Your task to perform on an android device: check the backup settings in the google photos Image 0: 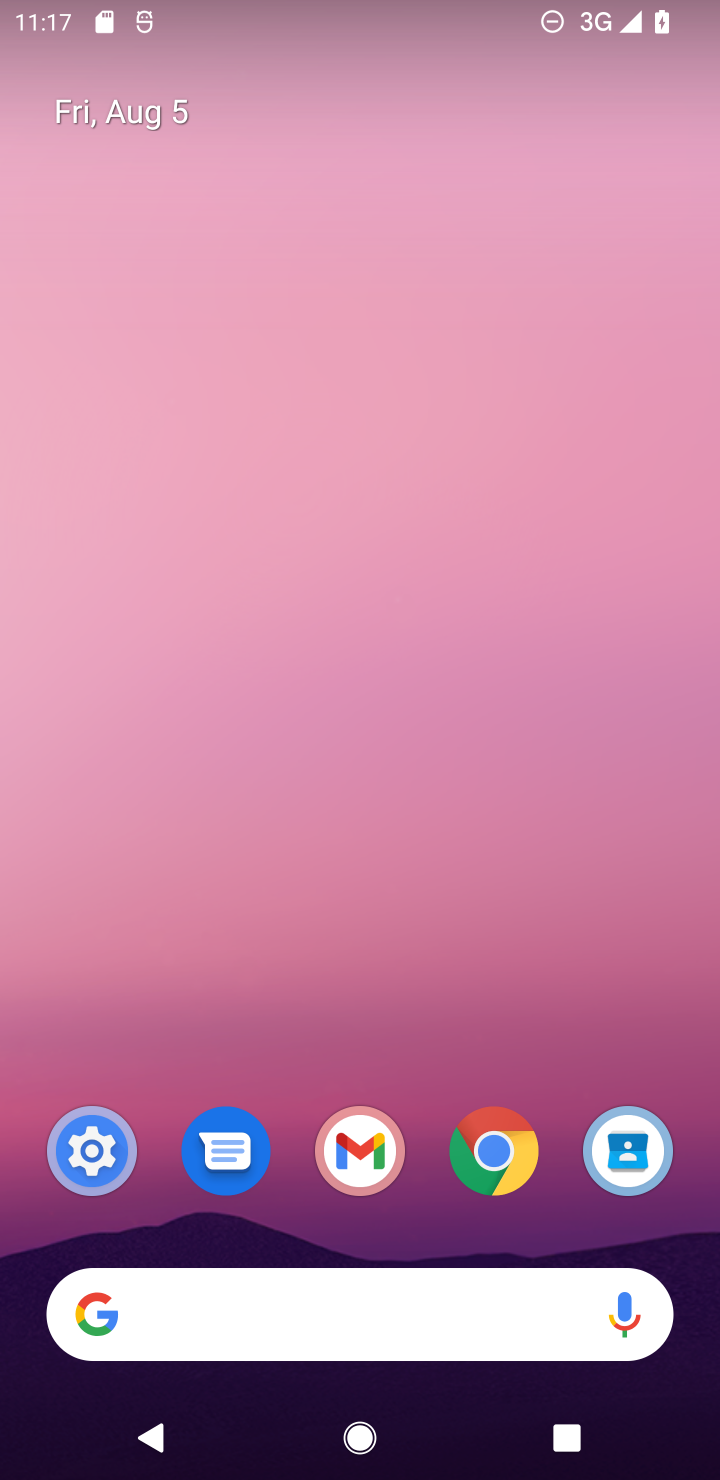
Step 0: drag from (346, 117) to (457, 27)
Your task to perform on an android device: check the backup settings in the google photos Image 1: 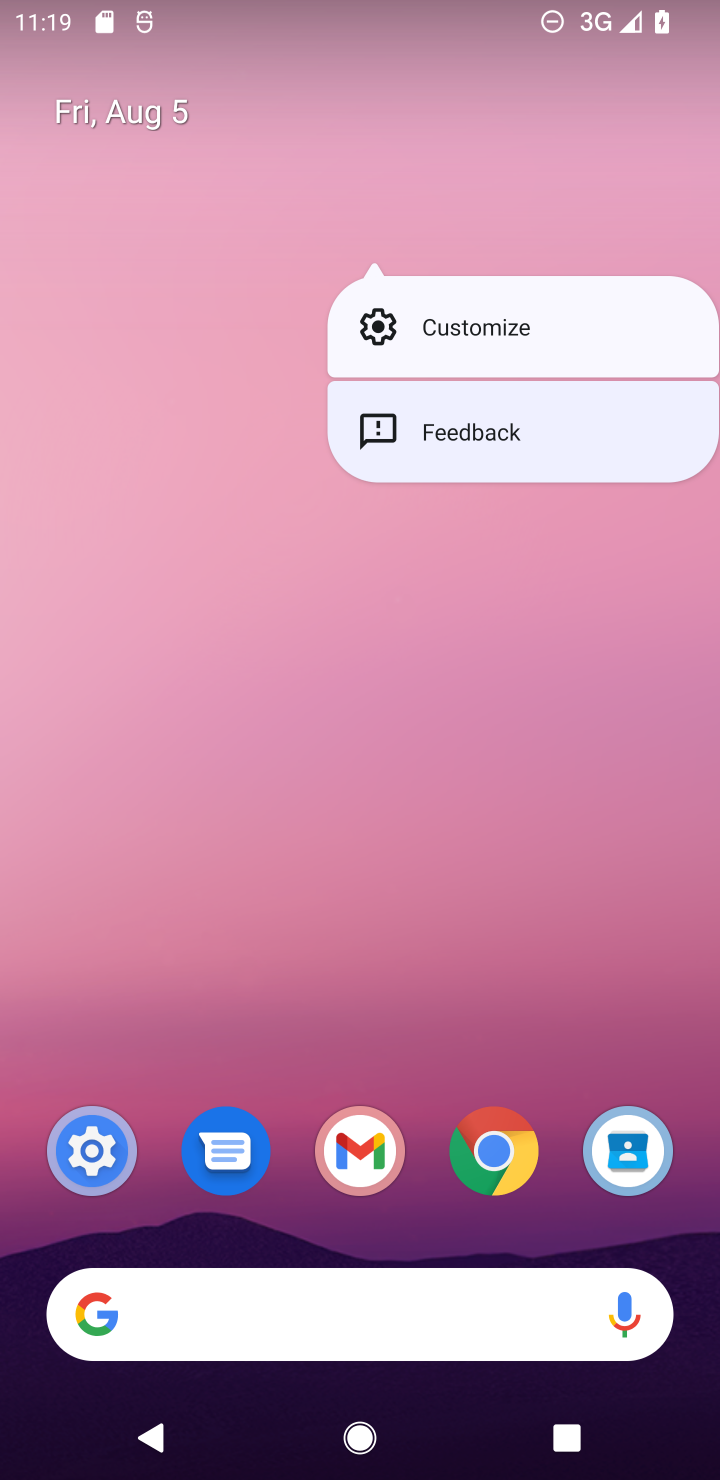
Step 1: click (267, 591)
Your task to perform on an android device: check the backup settings in the google photos Image 2: 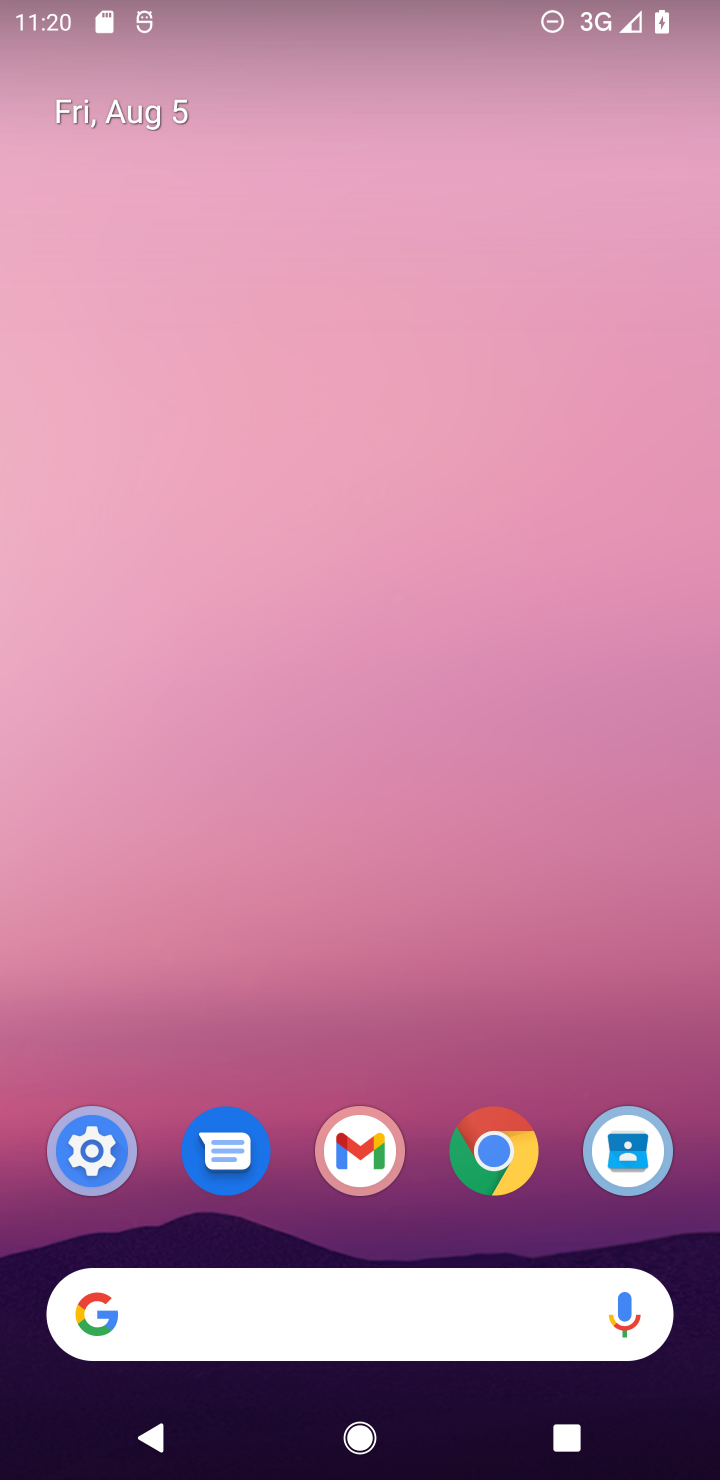
Step 2: drag from (299, 940) to (336, 144)
Your task to perform on an android device: check the backup settings in the google photos Image 3: 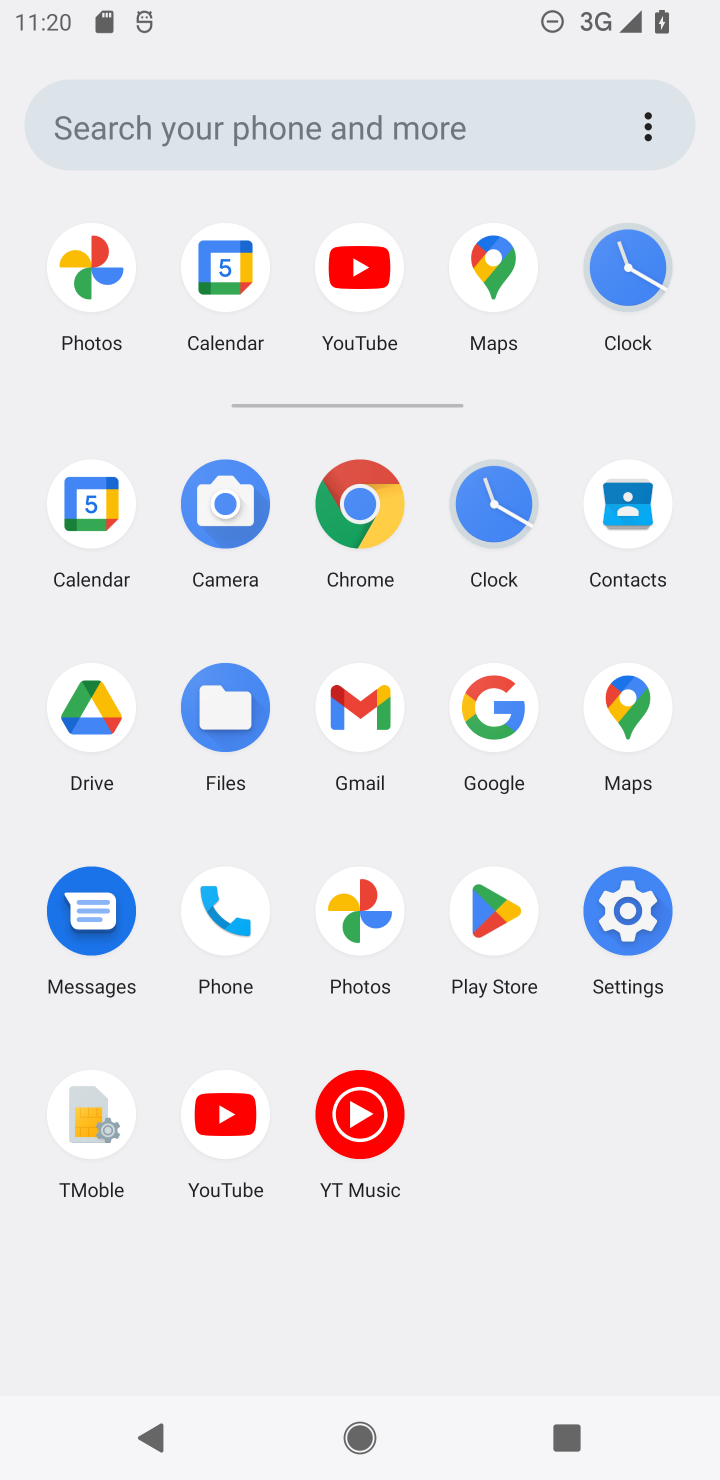
Step 3: click (88, 264)
Your task to perform on an android device: check the backup settings in the google photos Image 4: 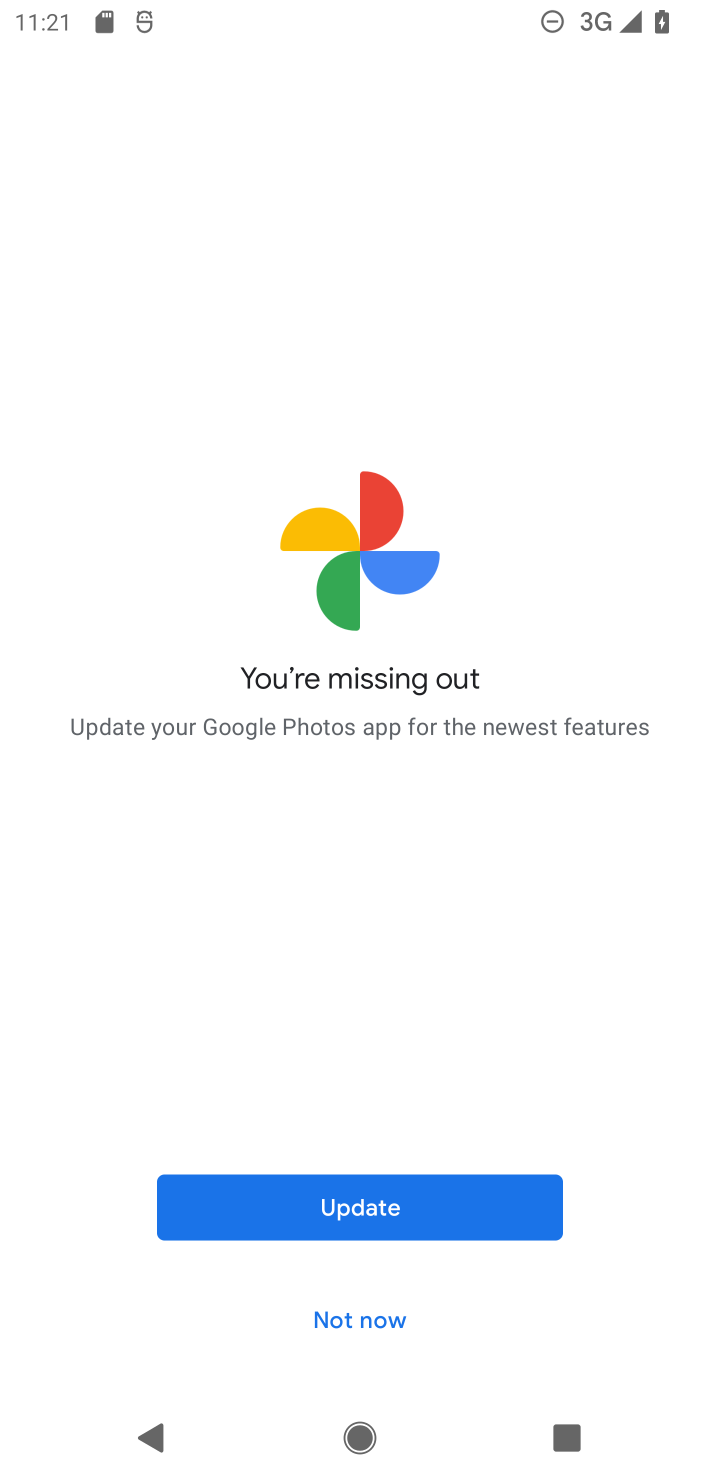
Step 4: click (360, 1324)
Your task to perform on an android device: check the backup settings in the google photos Image 5: 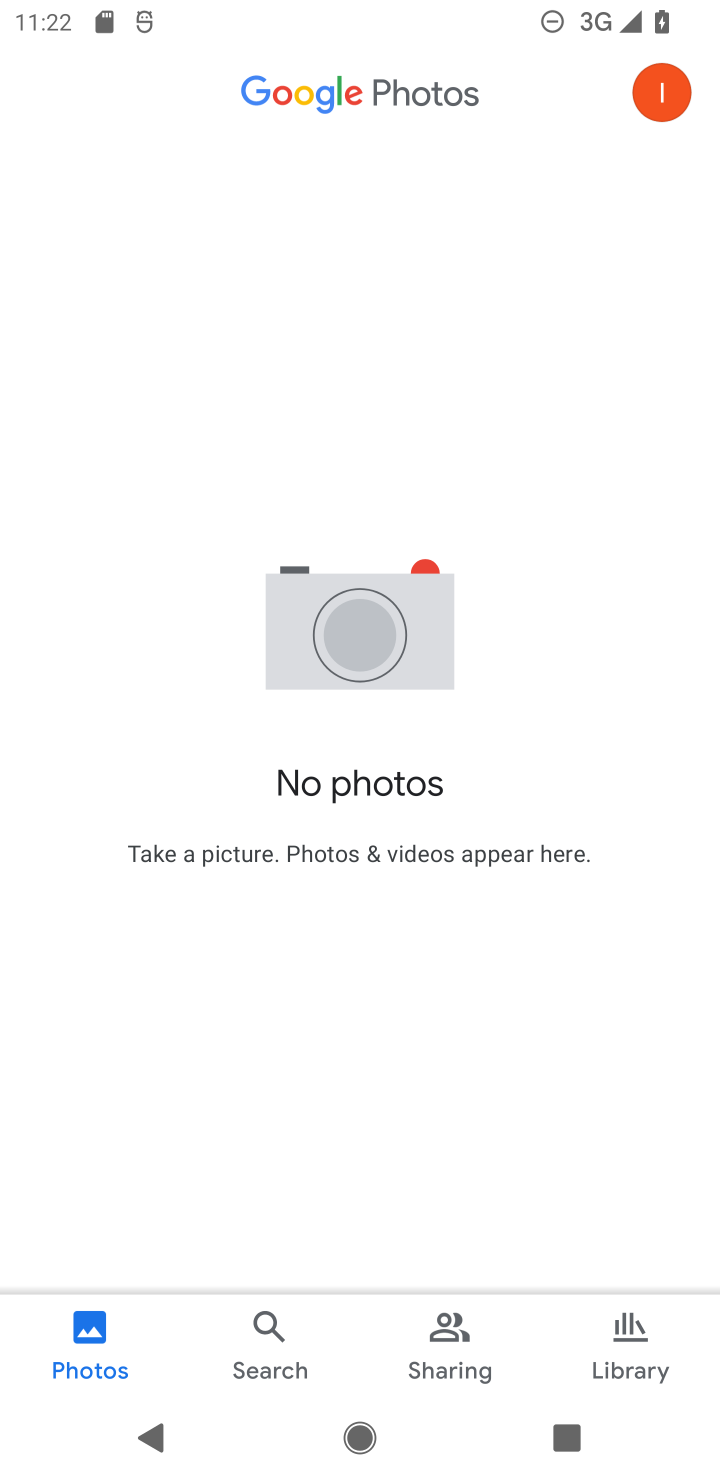
Step 5: click (660, 100)
Your task to perform on an android device: check the backup settings in the google photos Image 6: 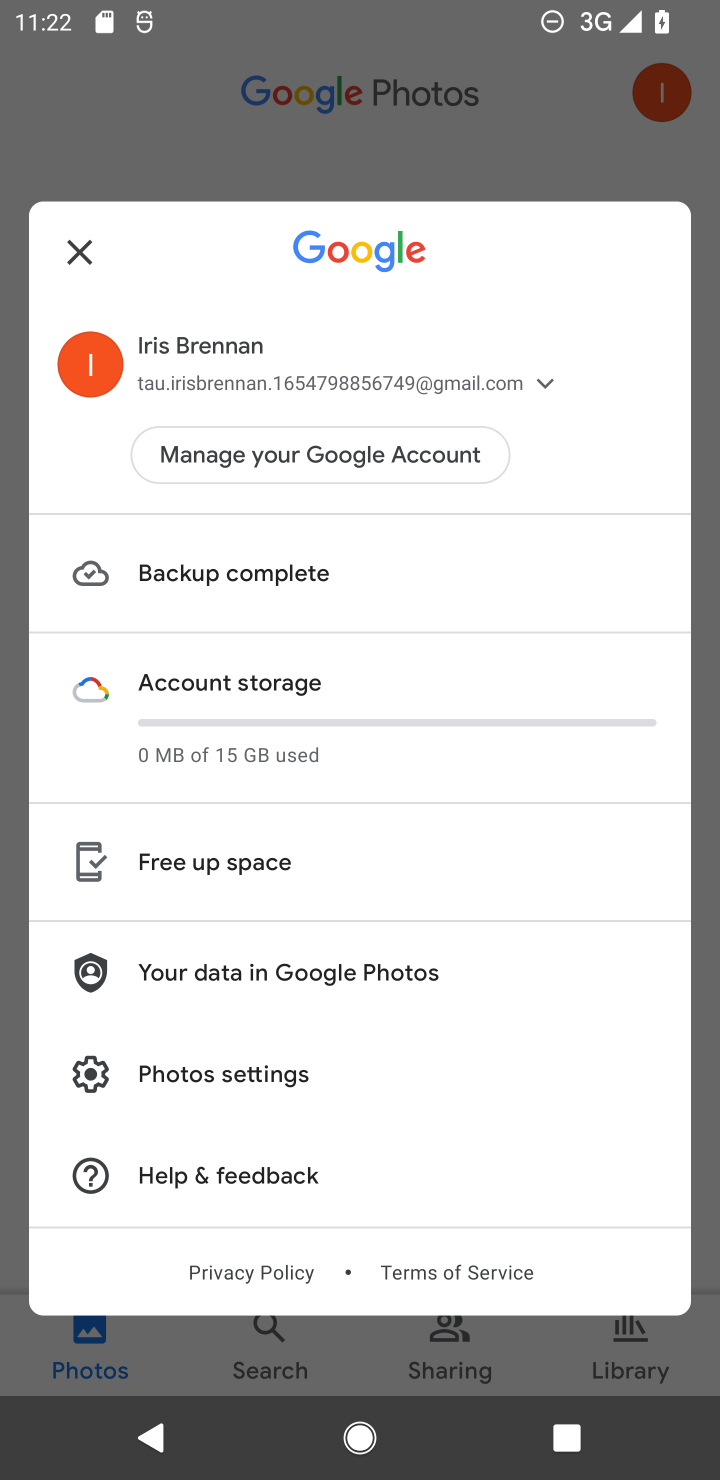
Step 6: click (210, 1060)
Your task to perform on an android device: check the backup settings in the google photos Image 7: 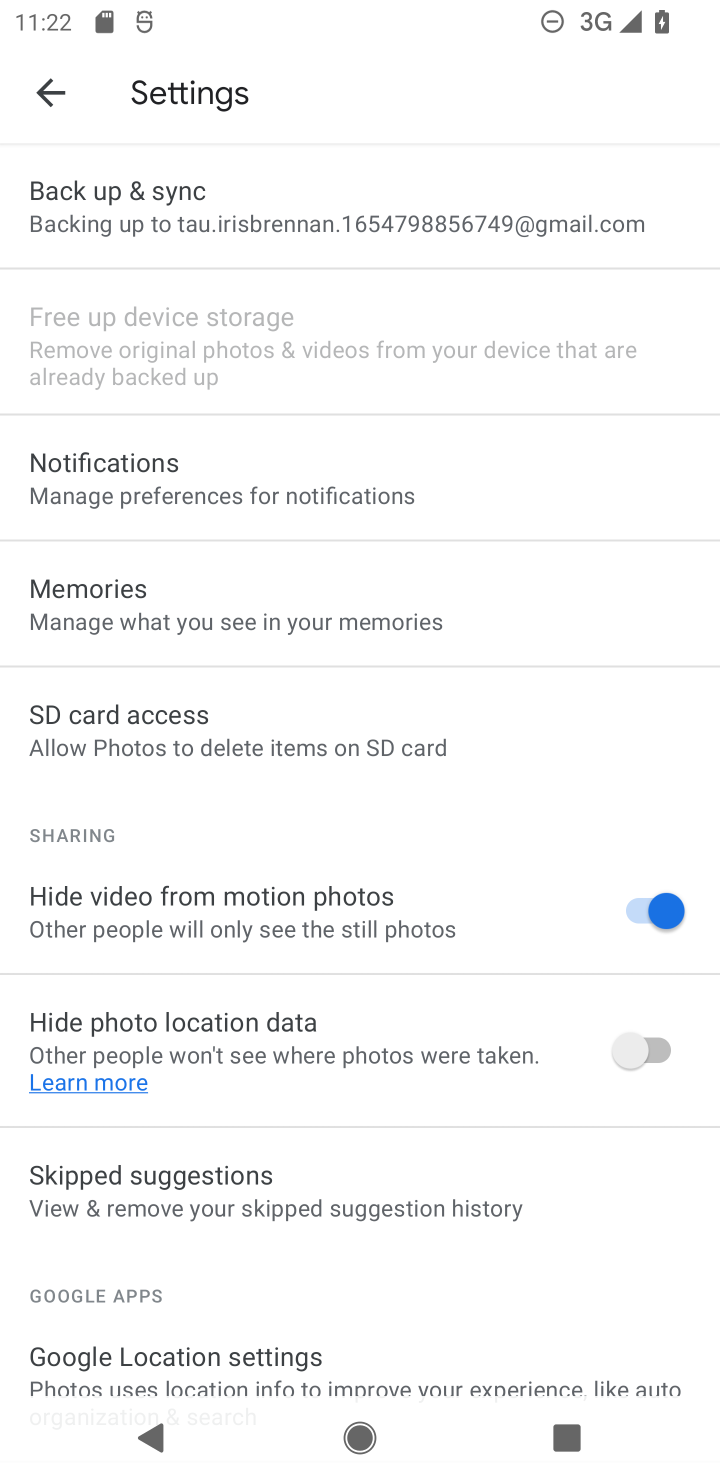
Step 7: click (239, 214)
Your task to perform on an android device: check the backup settings in the google photos Image 8: 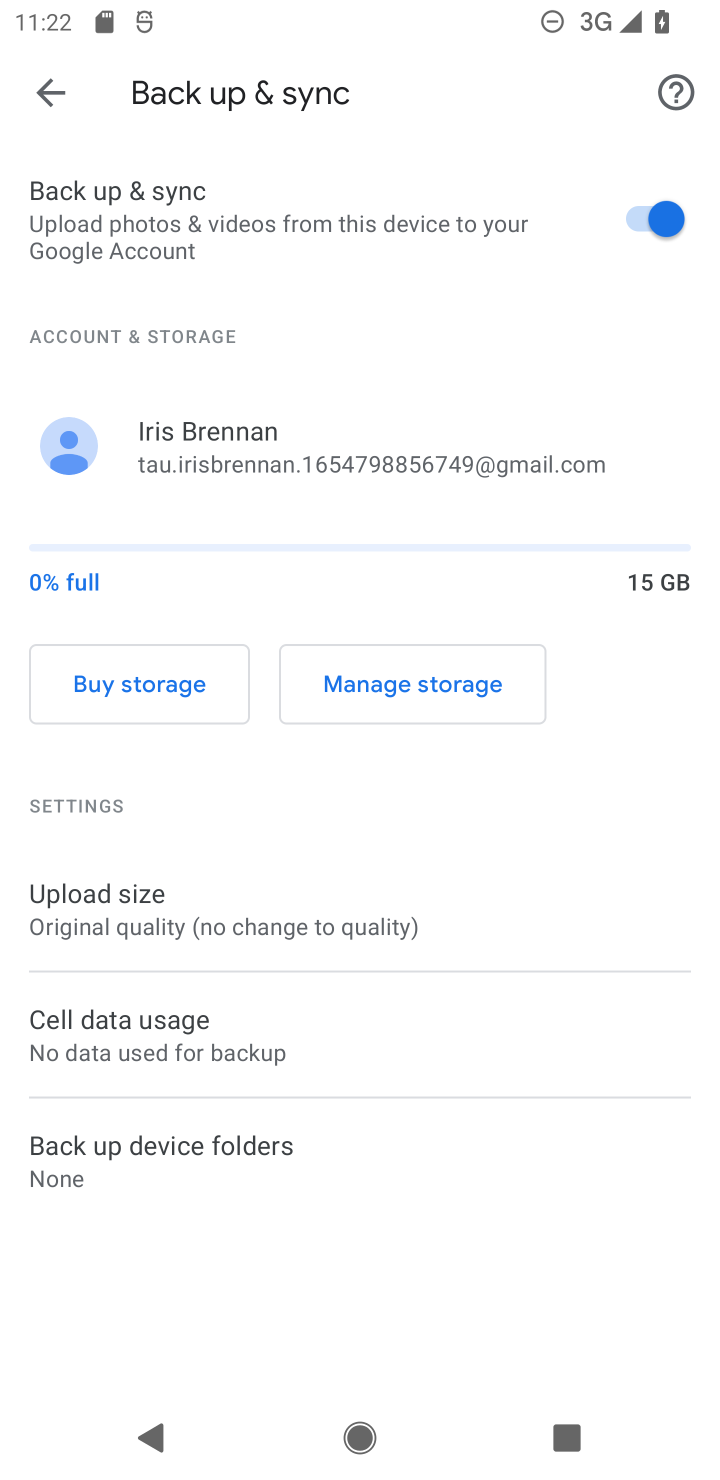
Step 8: task complete